Your task to perform on an android device: turn off sleep mode Image 0: 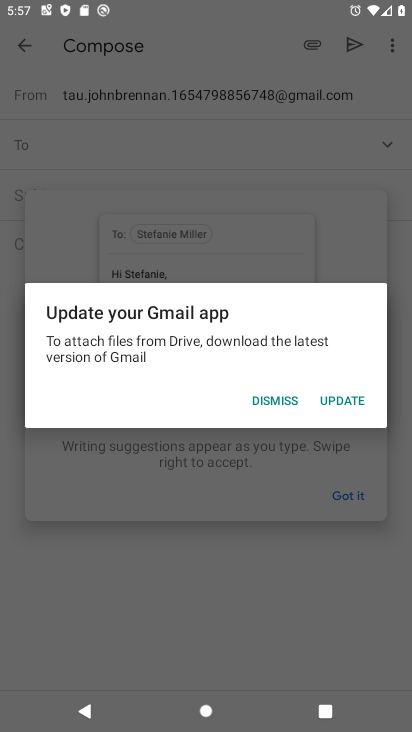
Step 0: press home button
Your task to perform on an android device: turn off sleep mode Image 1: 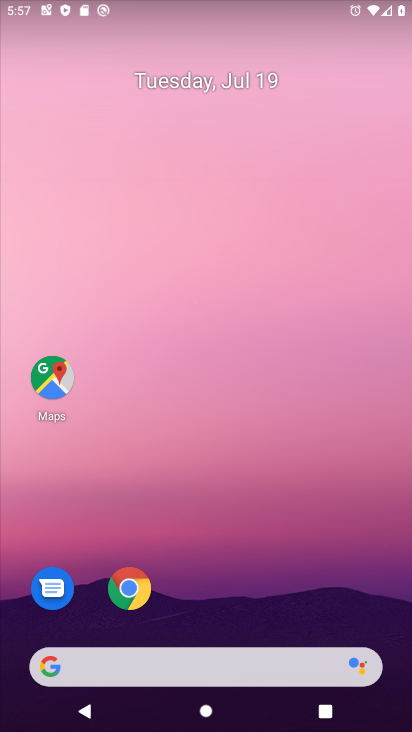
Step 1: drag from (186, 601) to (241, 3)
Your task to perform on an android device: turn off sleep mode Image 2: 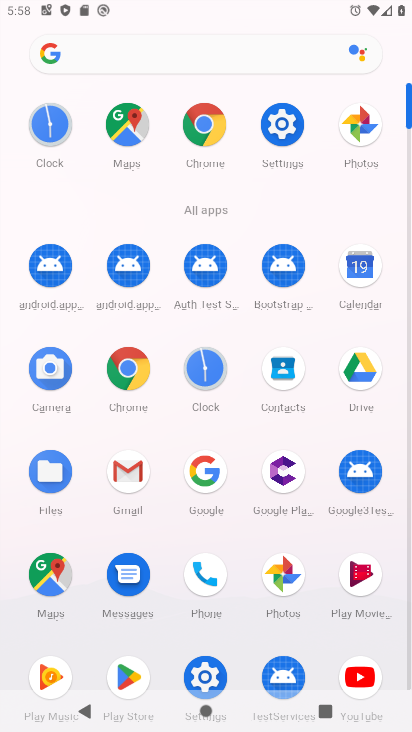
Step 2: click (276, 132)
Your task to perform on an android device: turn off sleep mode Image 3: 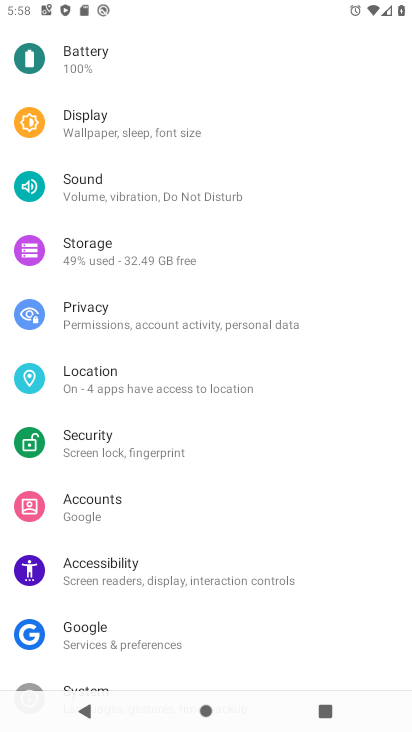
Step 3: task complete